Your task to perform on an android device: add a contact Image 0: 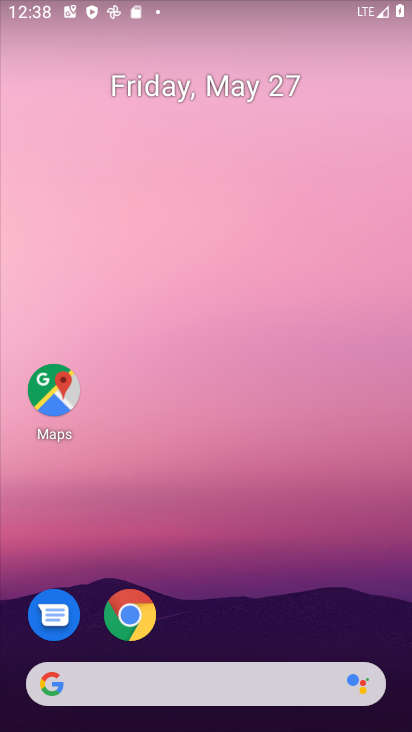
Step 0: drag from (243, 583) to (408, 10)
Your task to perform on an android device: add a contact Image 1: 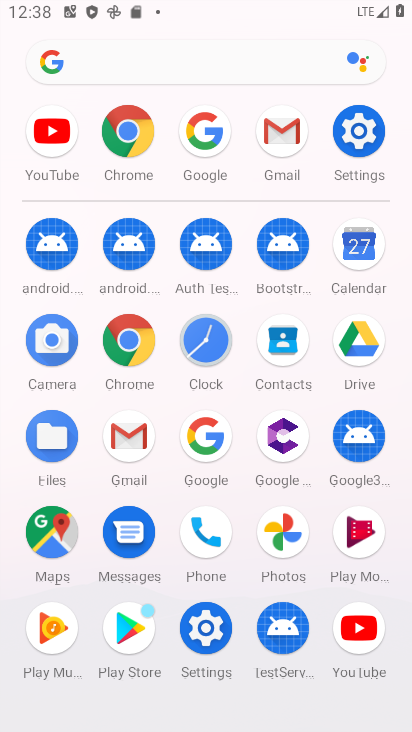
Step 1: click (289, 345)
Your task to perform on an android device: add a contact Image 2: 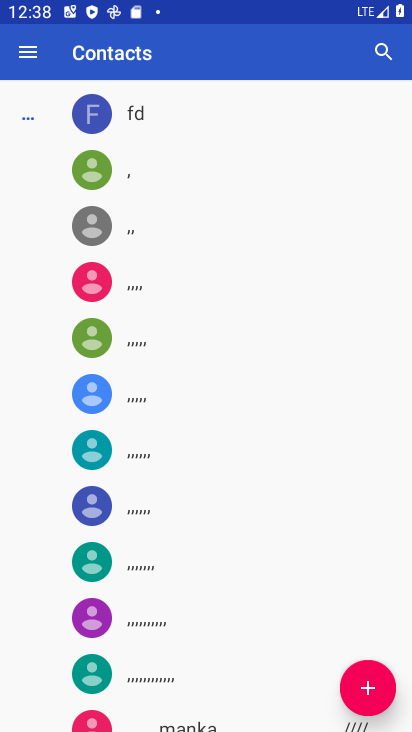
Step 2: click (352, 683)
Your task to perform on an android device: add a contact Image 3: 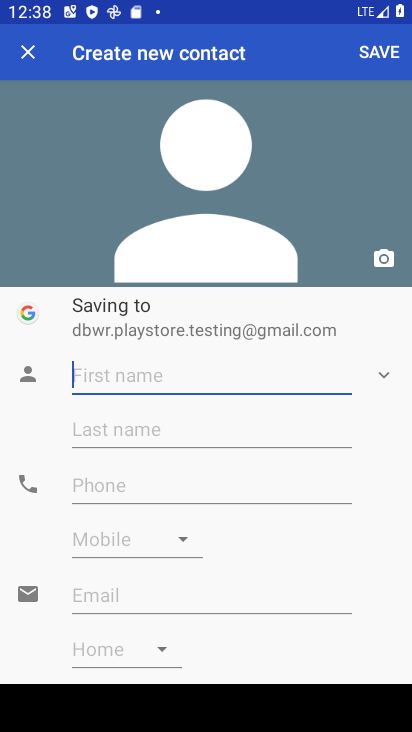
Step 3: type "gygdhfvjh"
Your task to perform on an android device: add a contact Image 4: 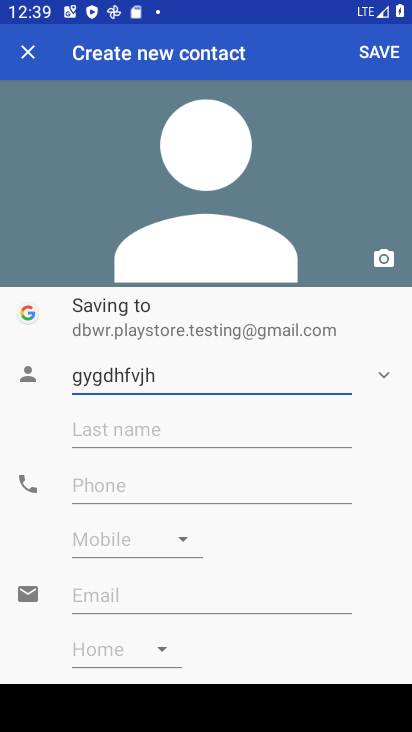
Step 4: click (171, 491)
Your task to perform on an android device: add a contact Image 5: 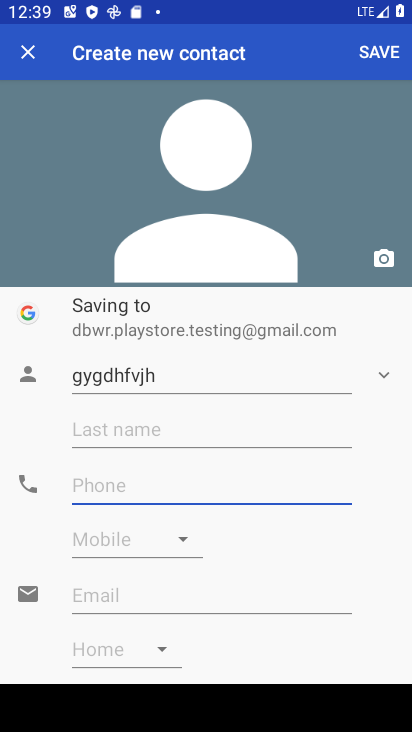
Step 5: type "98766777666"
Your task to perform on an android device: add a contact Image 6: 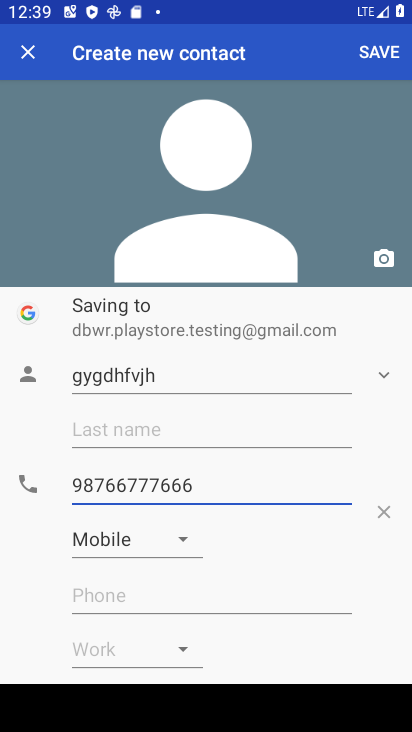
Step 6: click (381, 56)
Your task to perform on an android device: add a contact Image 7: 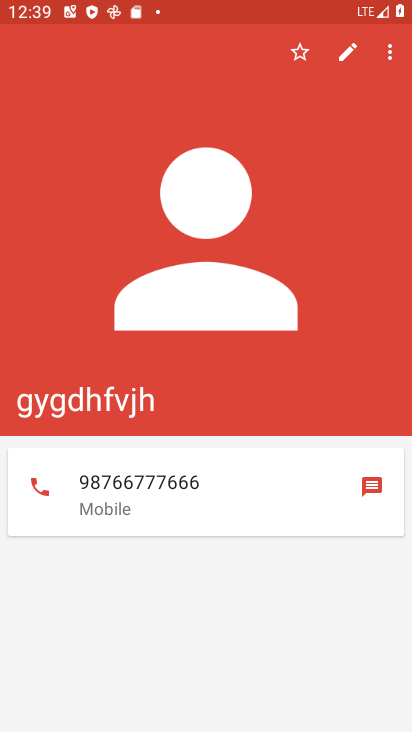
Step 7: task complete